Your task to perform on an android device: Go to battery settings Image 0: 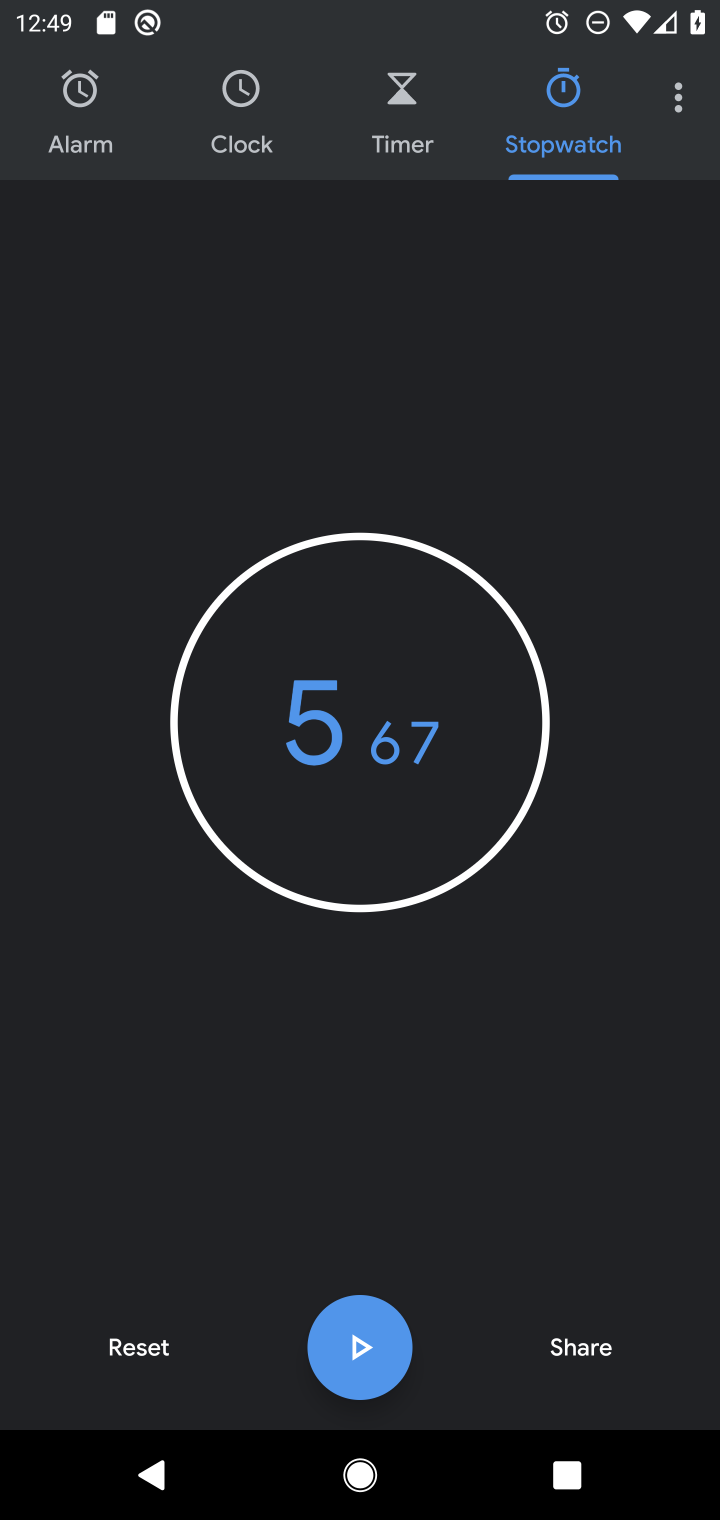
Step 0: press home button
Your task to perform on an android device: Go to battery settings Image 1: 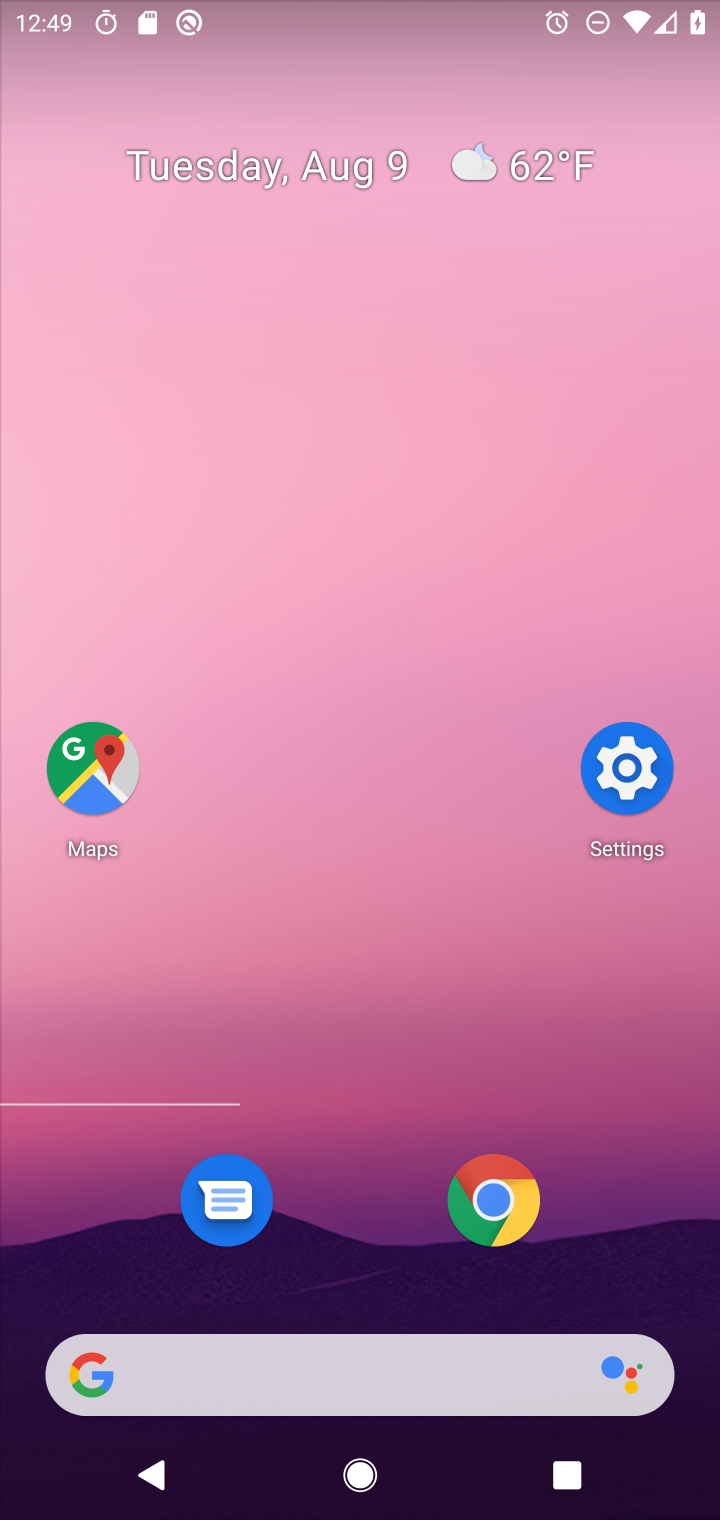
Step 1: click (622, 769)
Your task to perform on an android device: Go to battery settings Image 2: 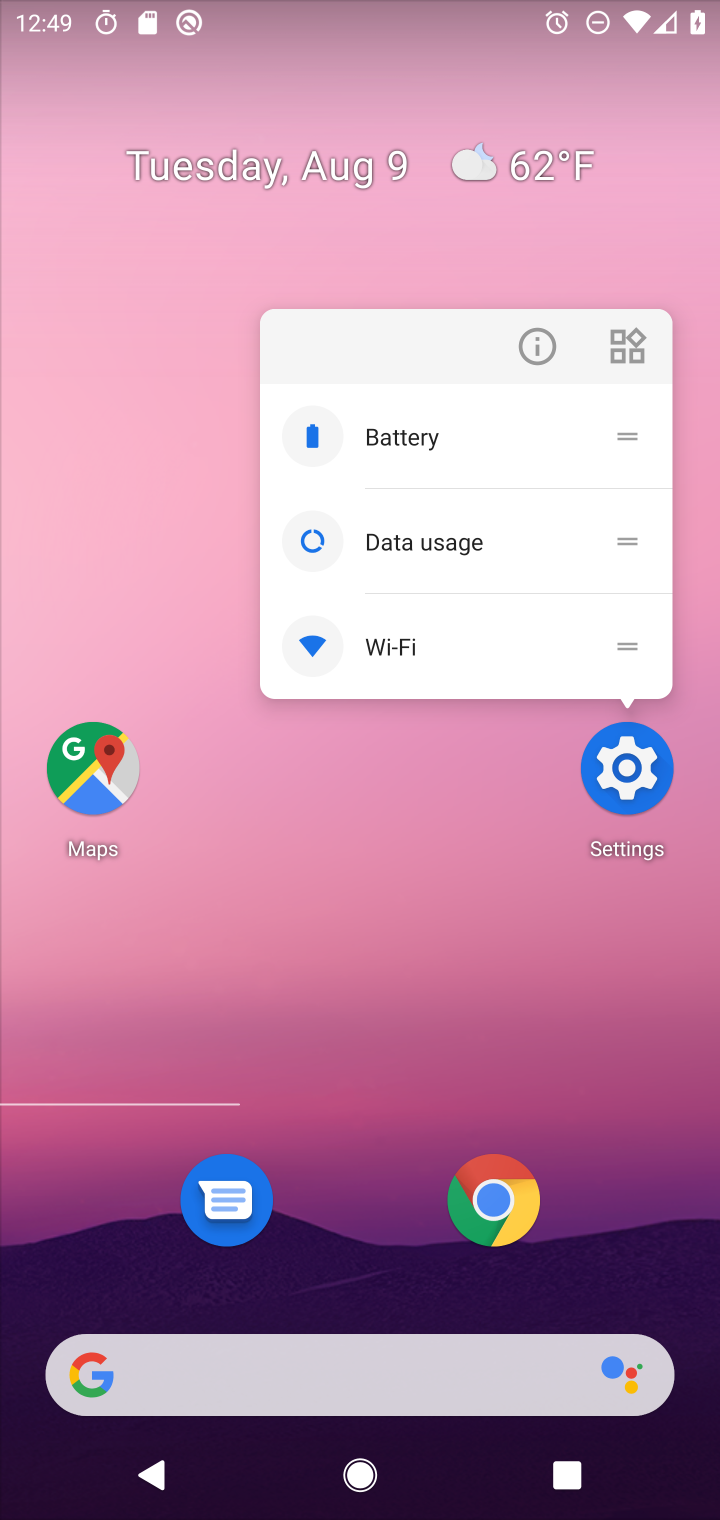
Step 2: click (622, 768)
Your task to perform on an android device: Go to battery settings Image 3: 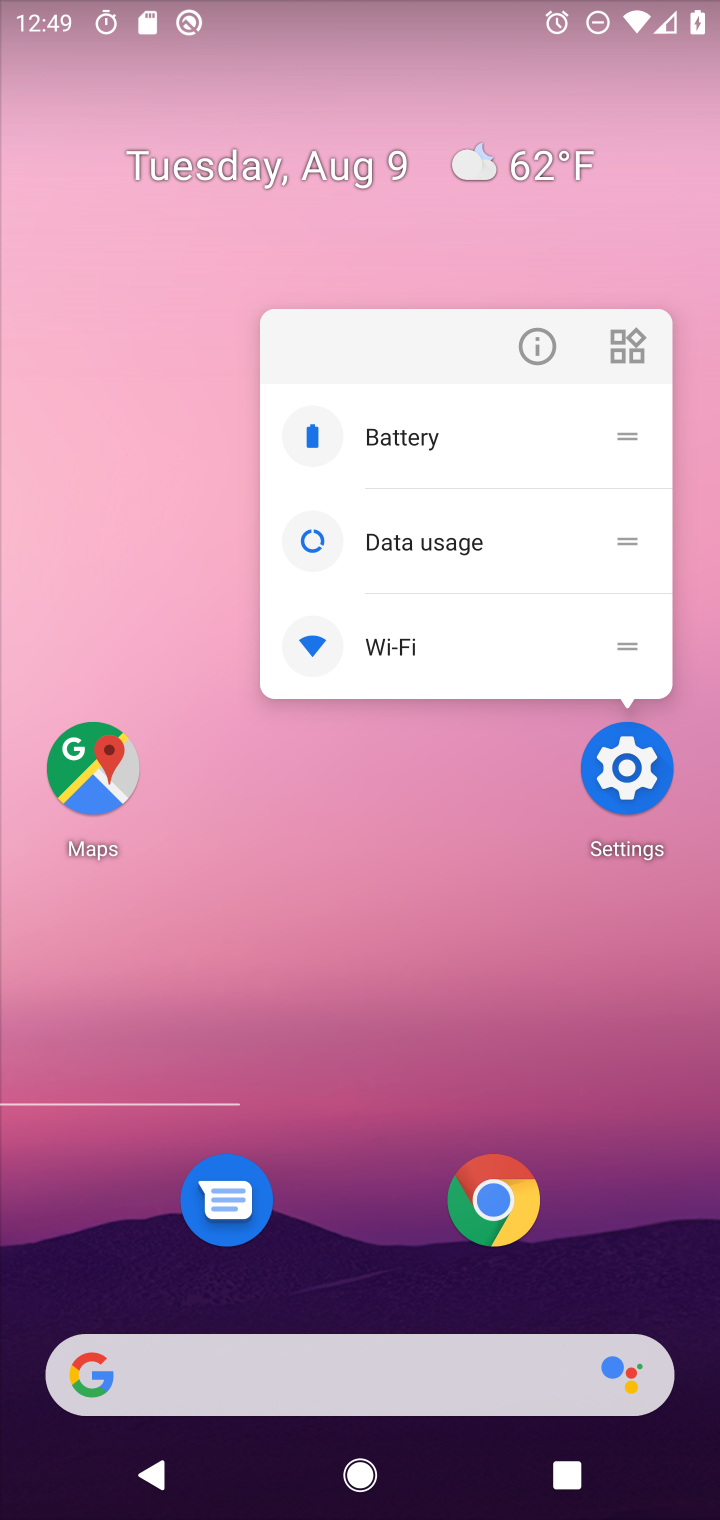
Step 3: click (622, 765)
Your task to perform on an android device: Go to battery settings Image 4: 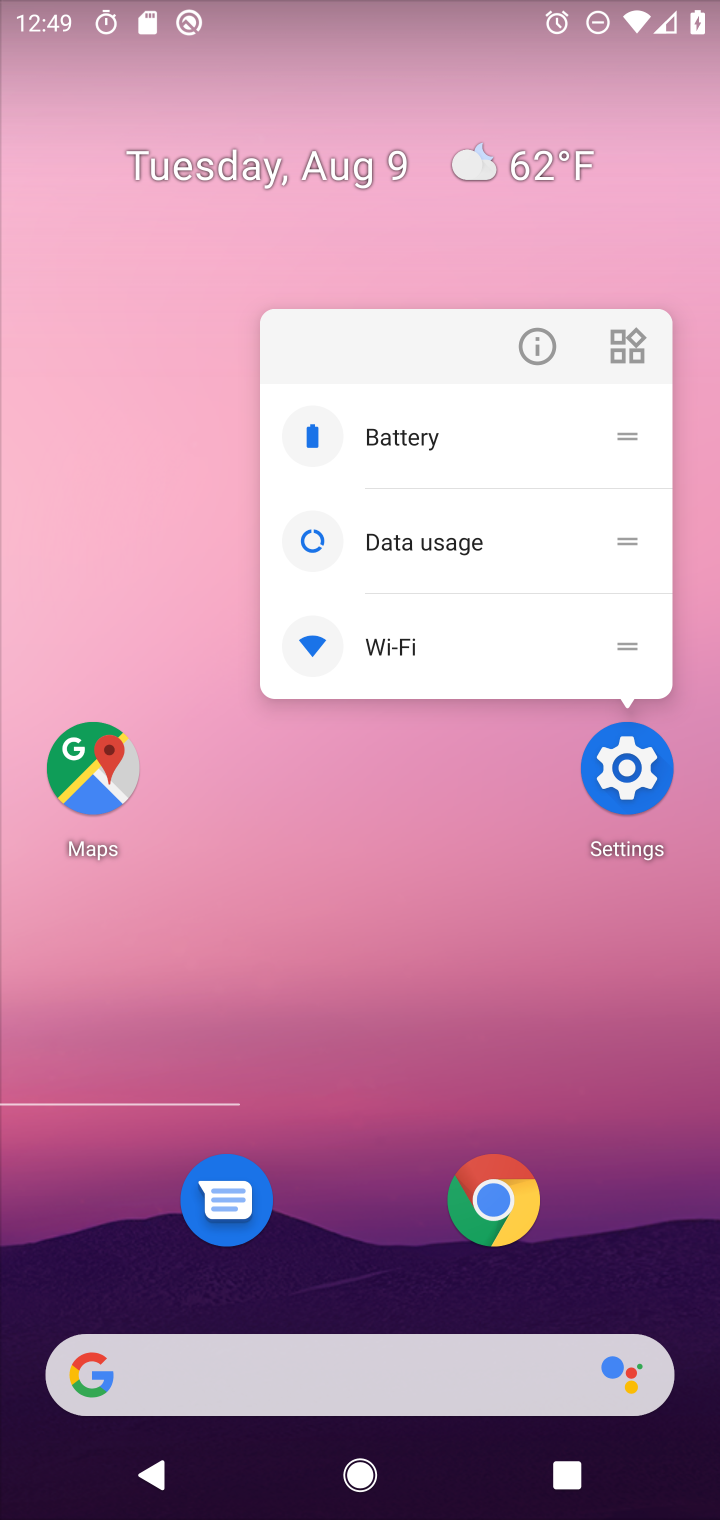
Step 4: click (622, 780)
Your task to perform on an android device: Go to battery settings Image 5: 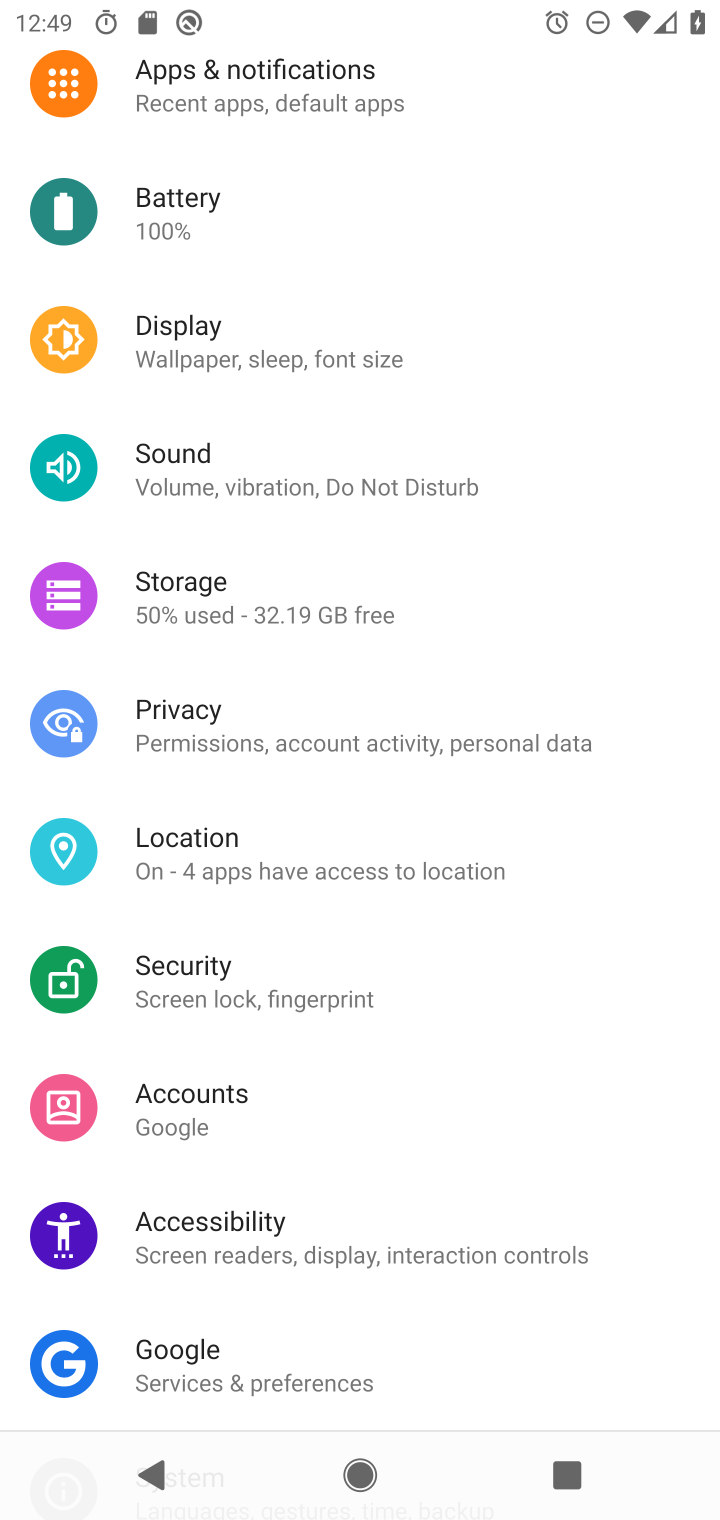
Step 5: click (195, 220)
Your task to perform on an android device: Go to battery settings Image 6: 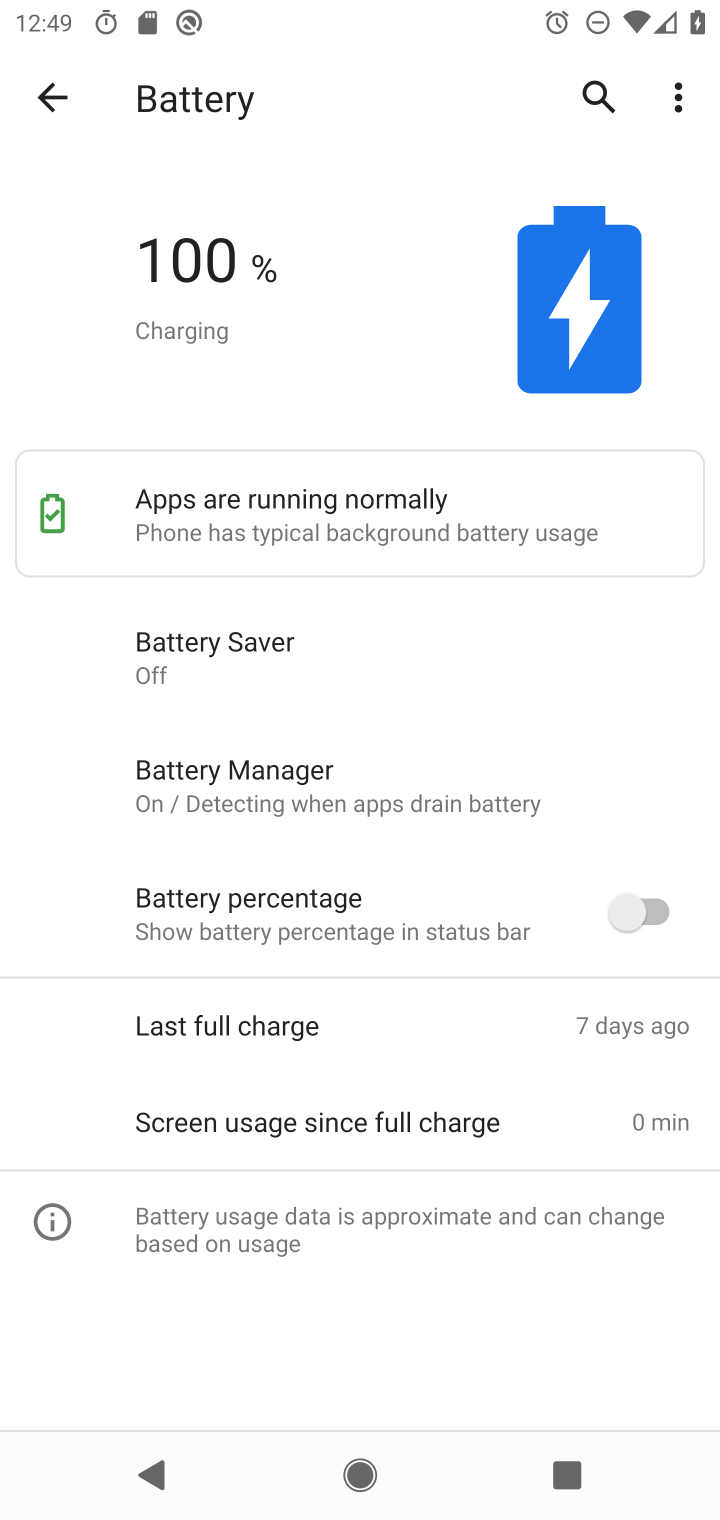
Step 6: task complete